Your task to perform on an android device: toggle sleep mode Image 0: 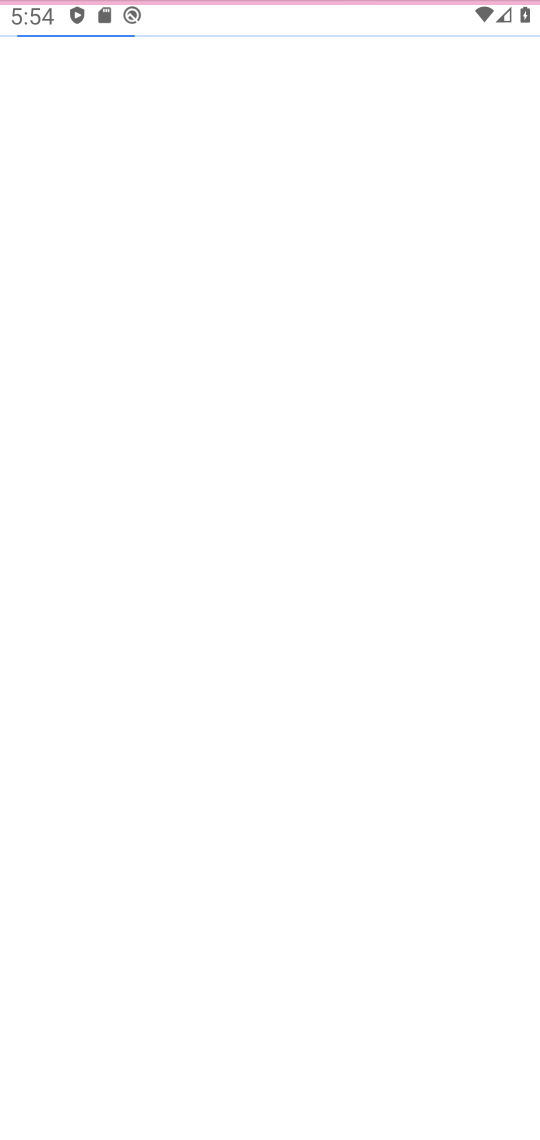
Step 0: press back button
Your task to perform on an android device: toggle sleep mode Image 1: 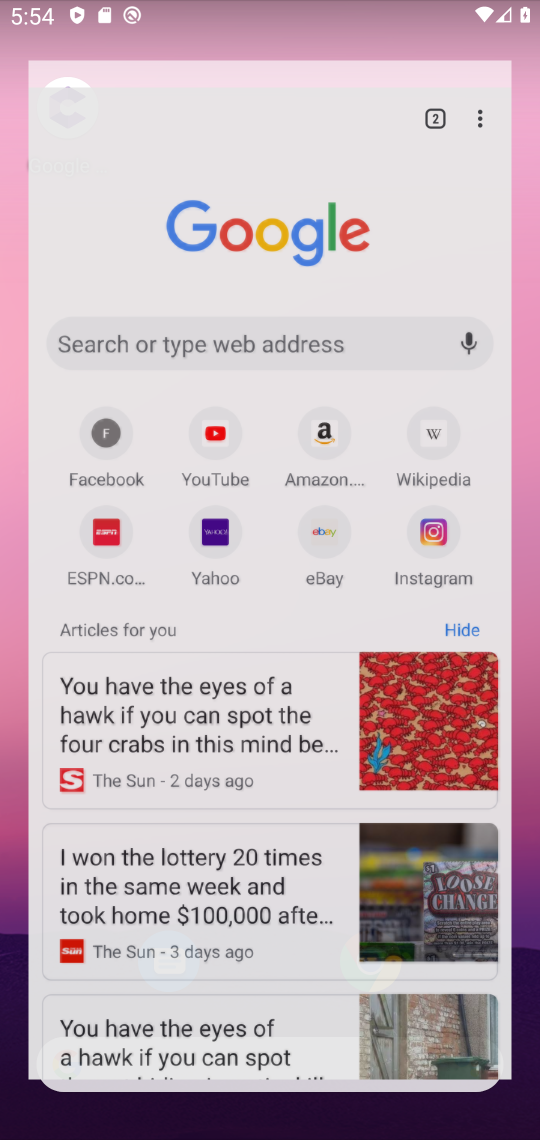
Step 1: drag from (134, 238) to (163, 291)
Your task to perform on an android device: toggle sleep mode Image 2: 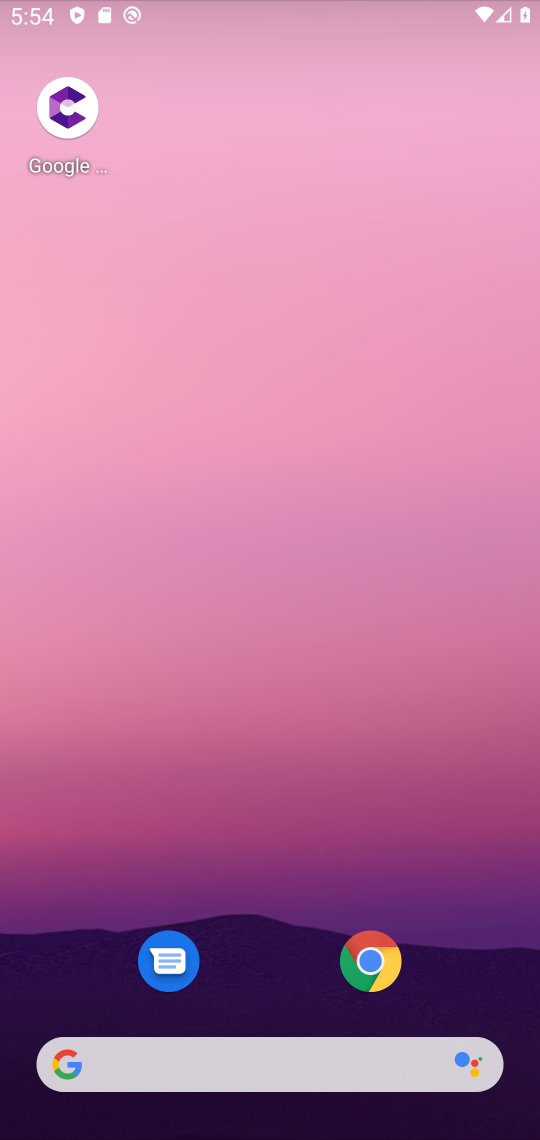
Step 2: press back button
Your task to perform on an android device: toggle sleep mode Image 3: 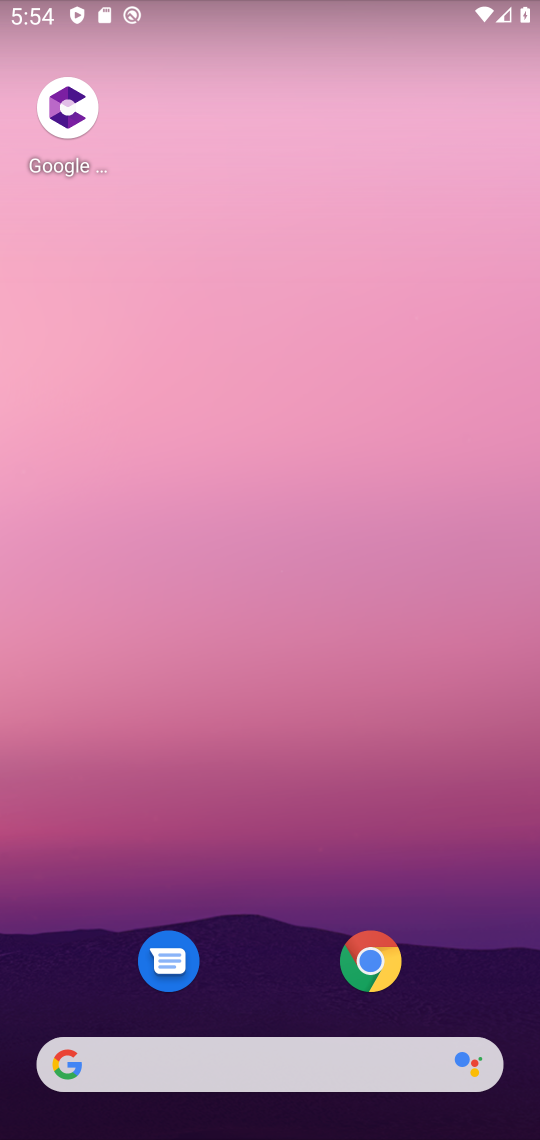
Step 3: press back button
Your task to perform on an android device: toggle sleep mode Image 4: 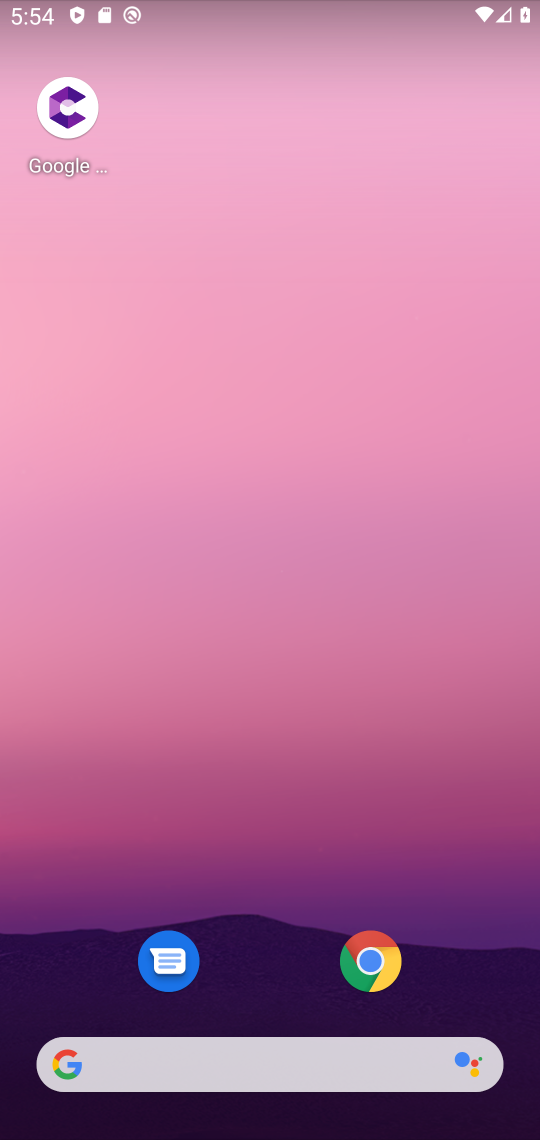
Step 4: drag from (191, 157) to (158, 108)
Your task to perform on an android device: toggle sleep mode Image 5: 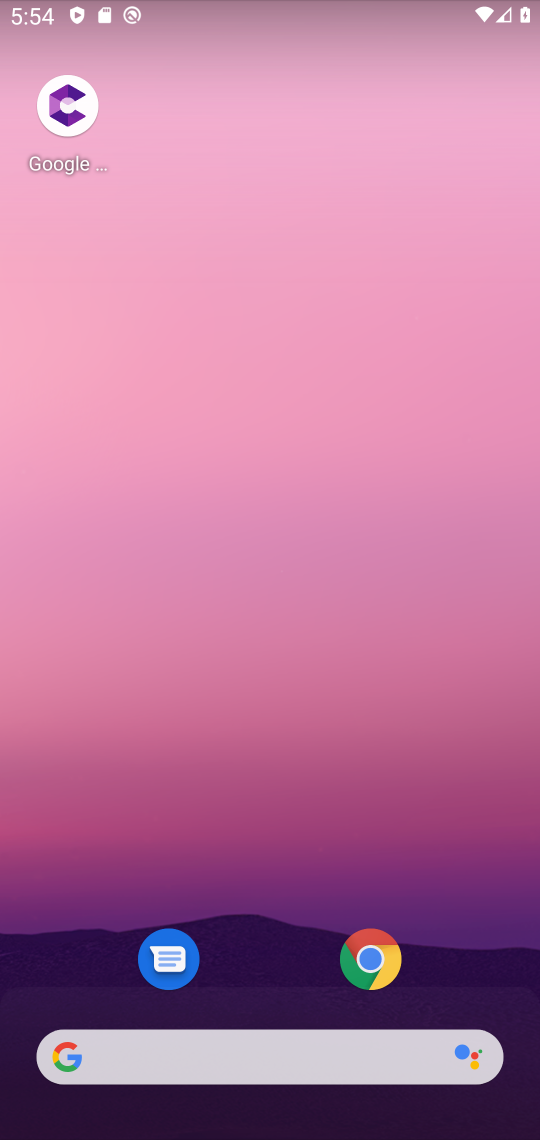
Step 5: drag from (216, 827) to (265, 5)
Your task to perform on an android device: toggle sleep mode Image 6: 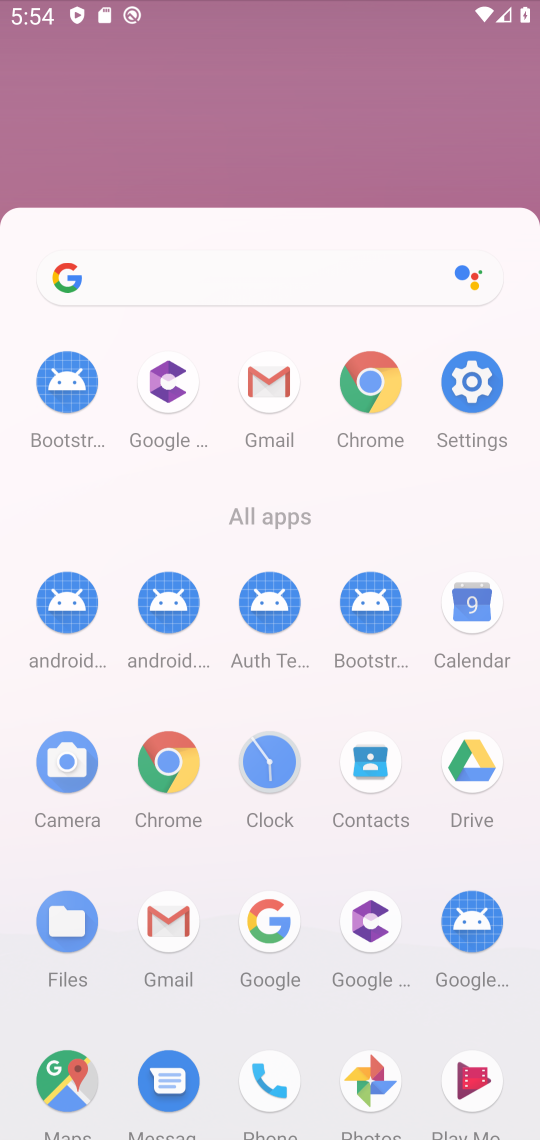
Step 6: drag from (256, 503) to (264, 7)
Your task to perform on an android device: toggle sleep mode Image 7: 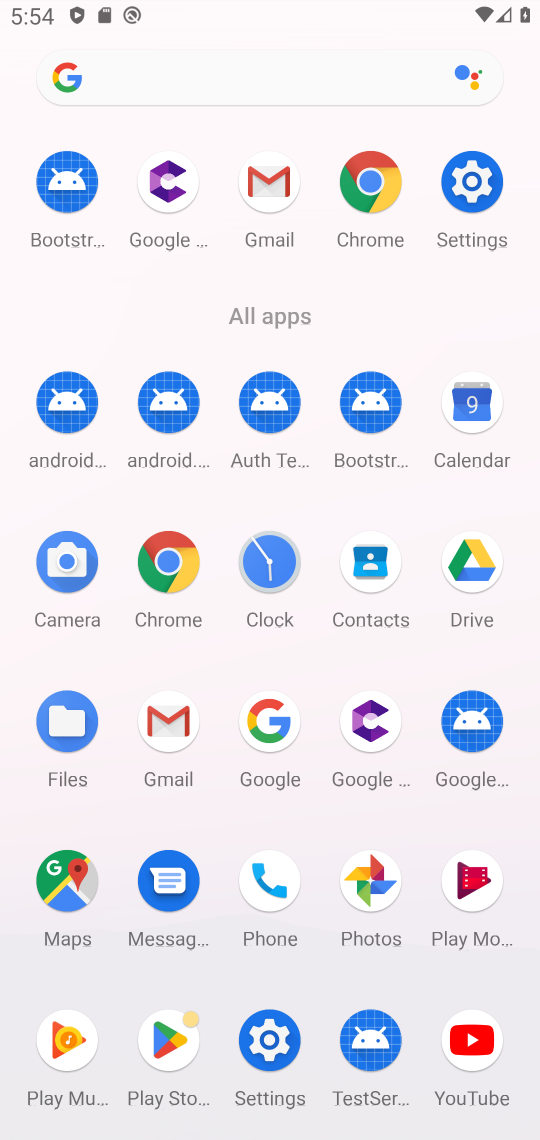
Step 7: click (481, 227)
Your task to perform on an android device: toggle sleep mode Image 8: 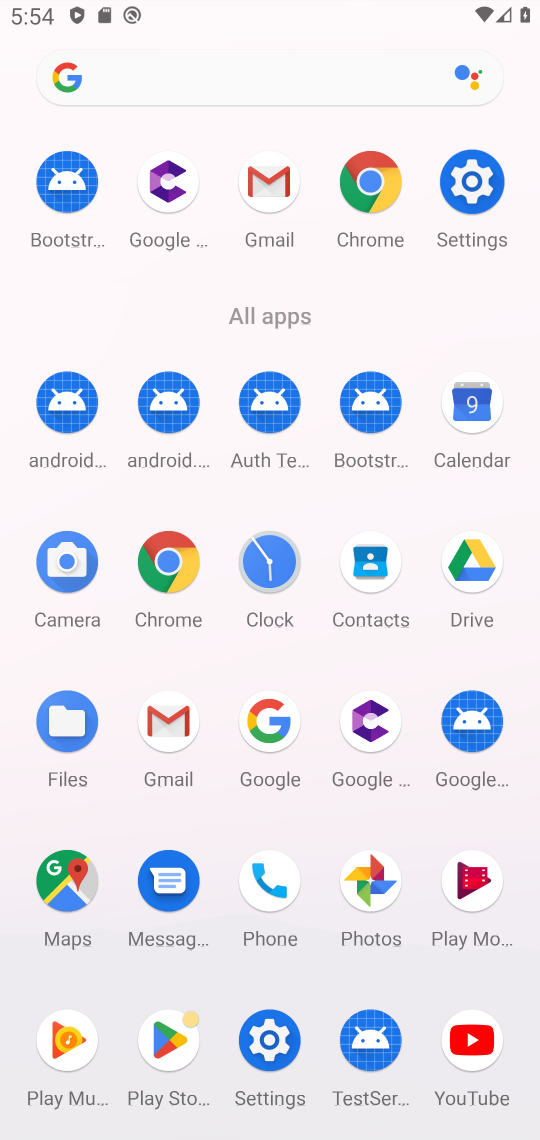
Step 8: click (481, 227)
Your task to perform on an android device: toggle sleep mode Image 9: 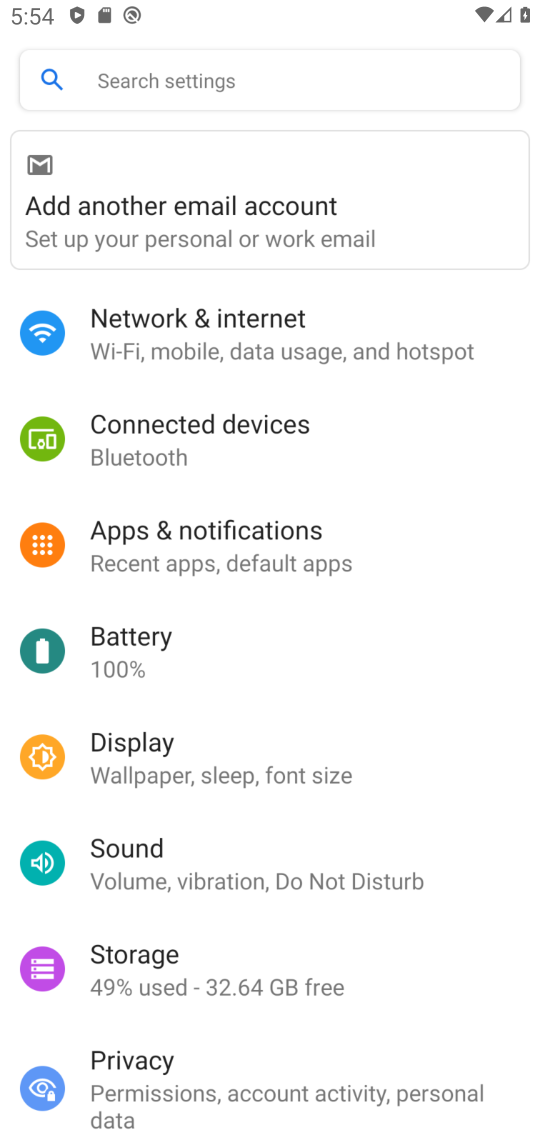
Step 9: click (483, 222)
Your task to perform on an android device: toggle sleep mode Image 10: 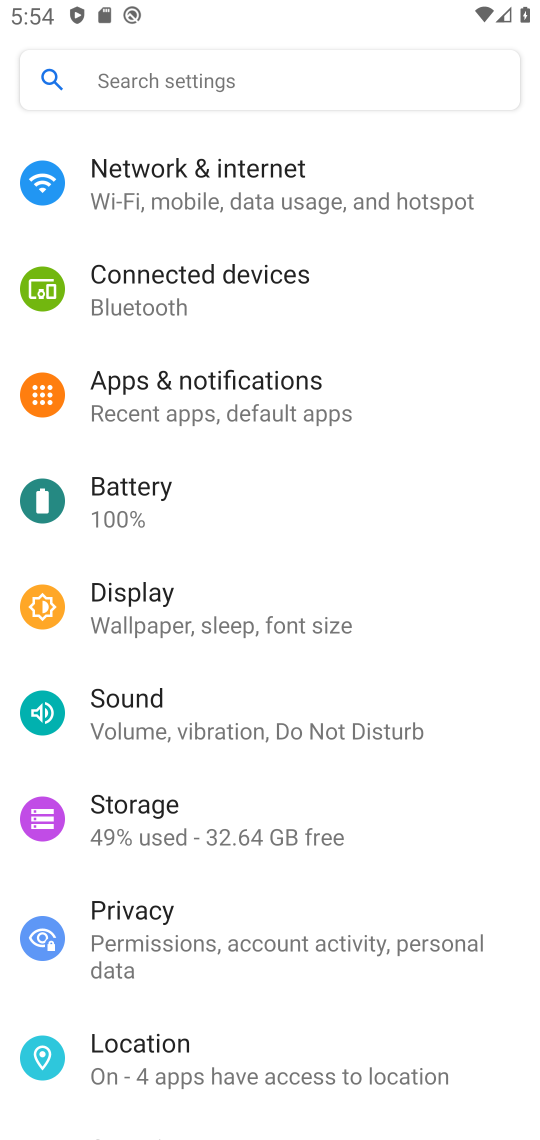
Step 10: click (145, 239)
Your task to perform on an android device: toggle sleep mode Image 11: 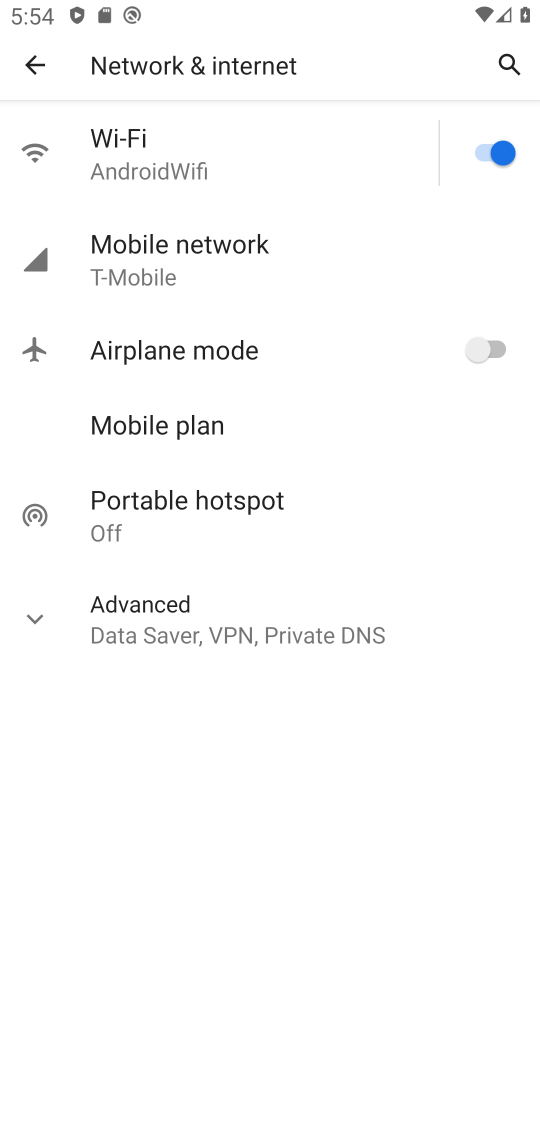
Step 11: click (43, 57)
Your task to perform on an android device: toggle sleep mode Image 12: 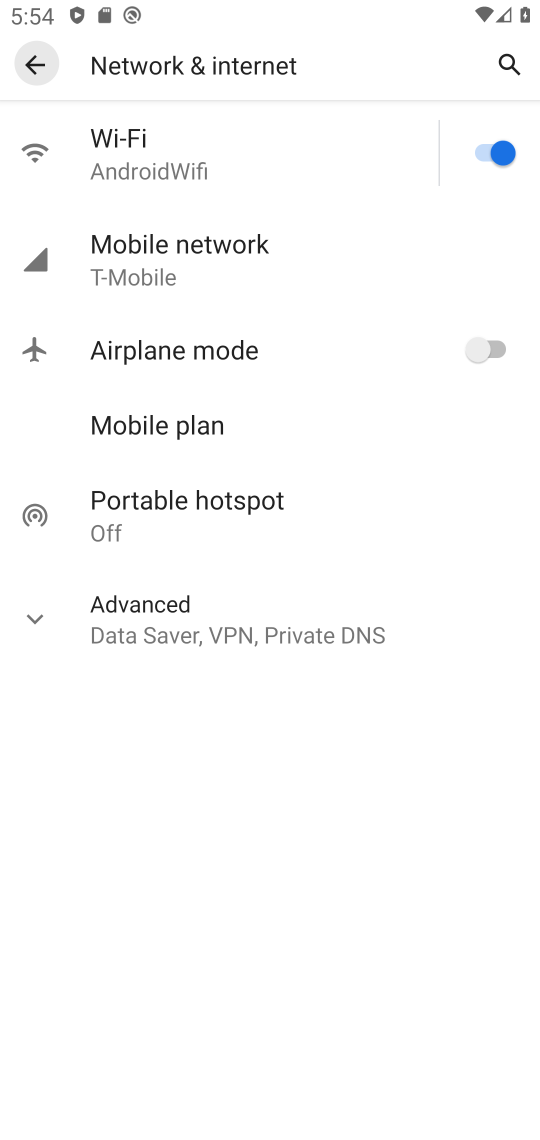
Step 12: click (39, 74)
Your task to perform on an android device: toggle sleep mode Image 13: 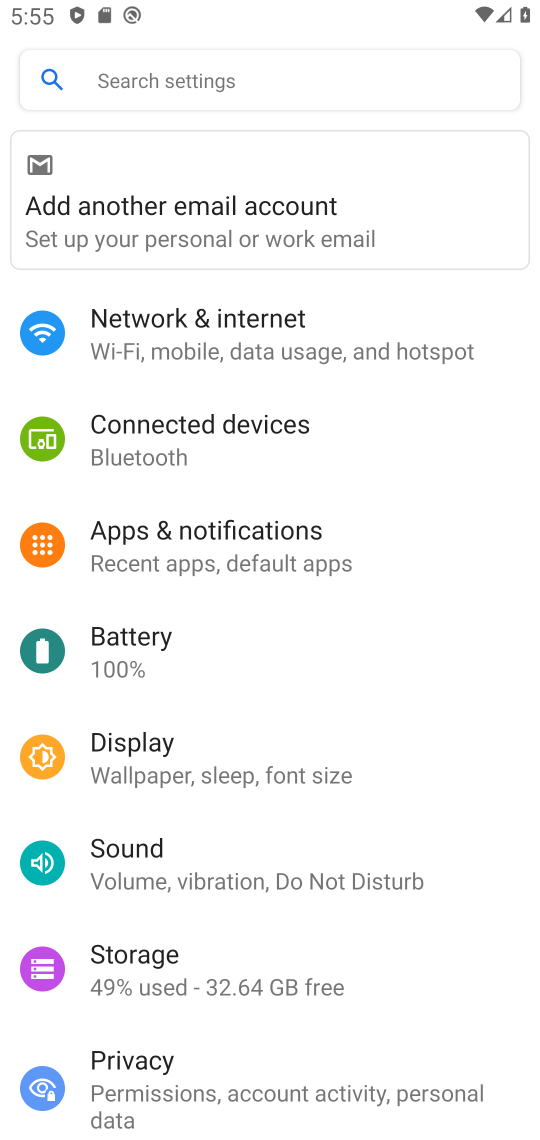
Step 13: click (130, 644)
Your task to perform on an android device: toggle sleep mode Image 14: 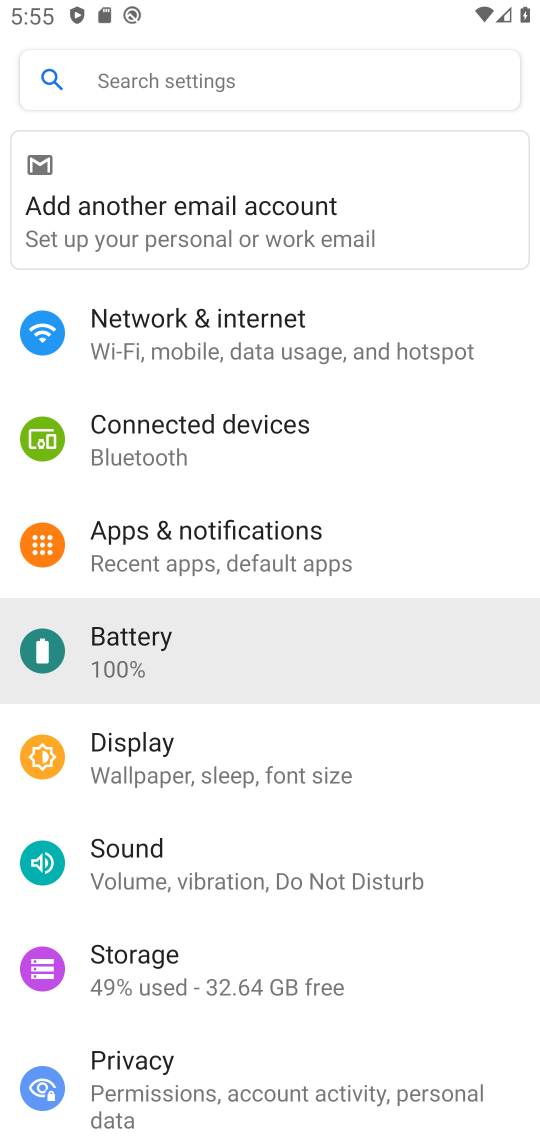
Step 14: click (130, 767)
Your task to perform on an android device: toggle sleep mode Image 15: 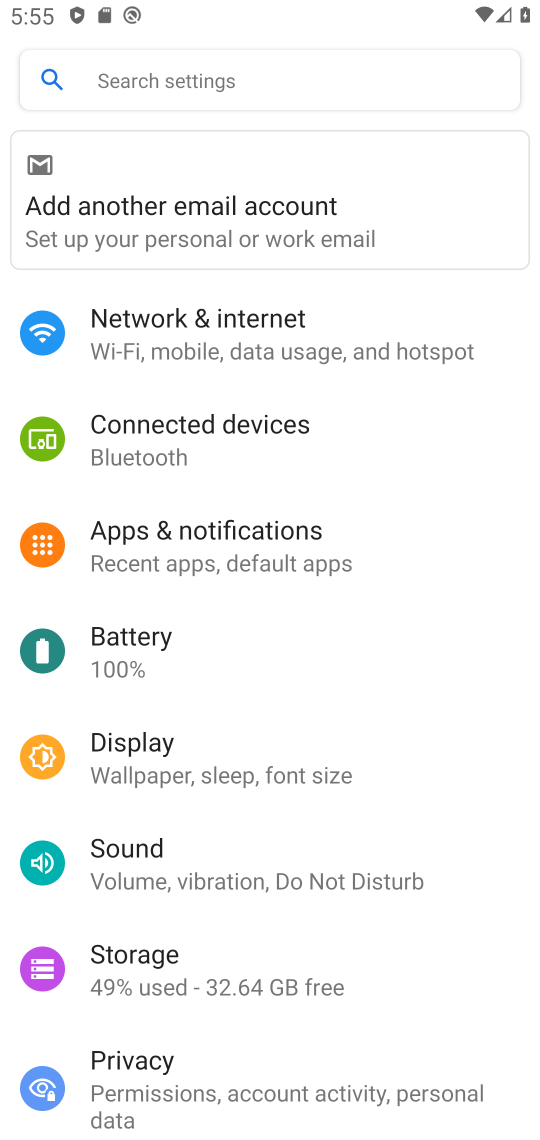
Step 15: click (130, 770)
Your task to perform on an android device: toggle sleep mode Image 16: 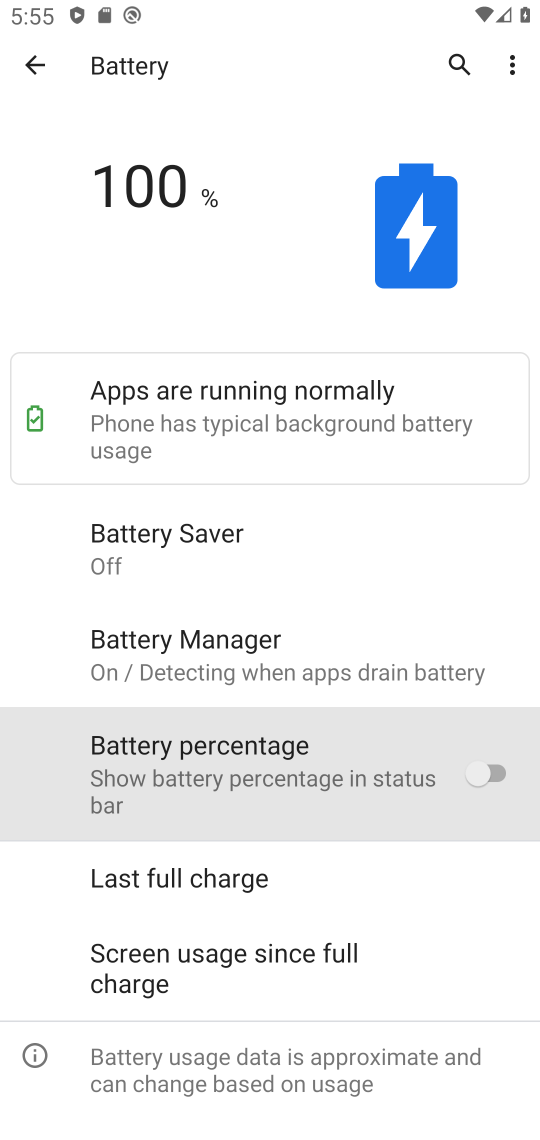
Step 16: click (128, 716)
Your task to perform on an android device: toggle sleep mode Image 17: 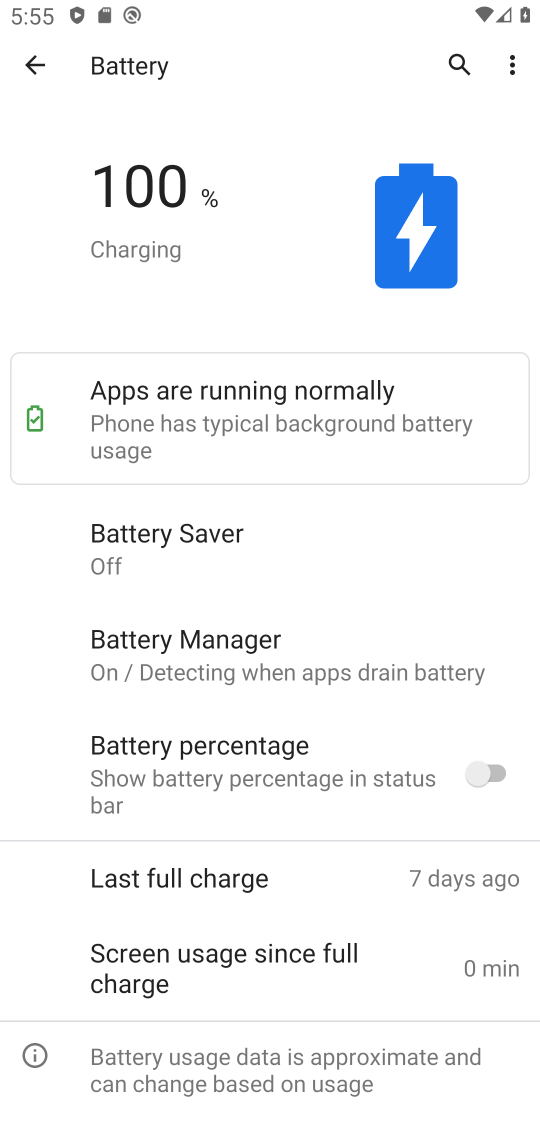
Step 17: click (33, 52)
Your task to perform on an android device: toggle sleep mode Image 18: 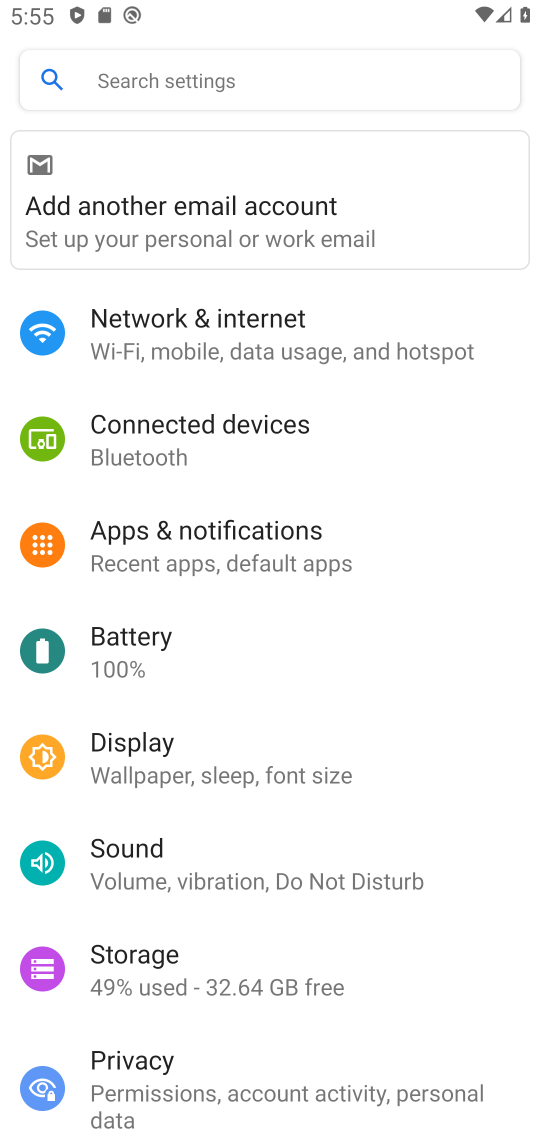
Step 18: click (124, 746)
Your task to perform on an android device: toggle sleep mode Image 19: 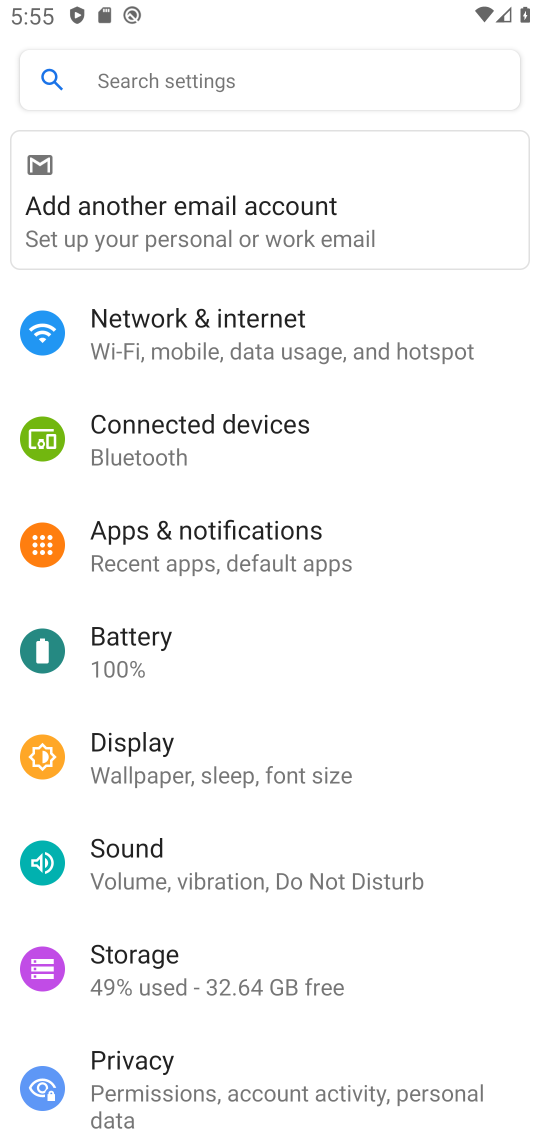
Step 19: click (125, 748)
Your task to perform on an android device: toggle sleep mode Image 20: 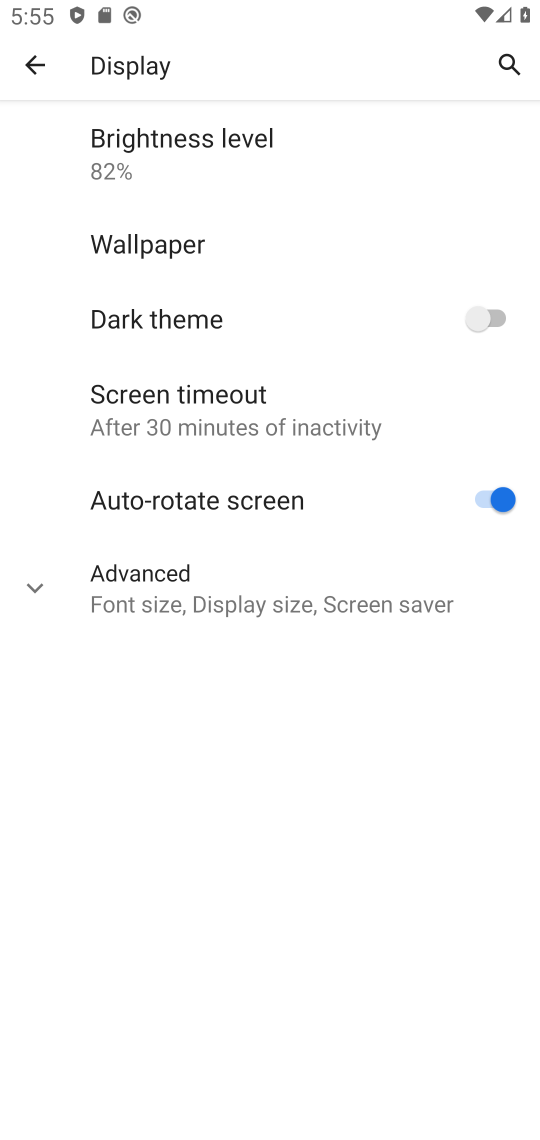
Step 20: click (139, 419)
Your task to perform on an android device: toggle sleep mode Image 21: 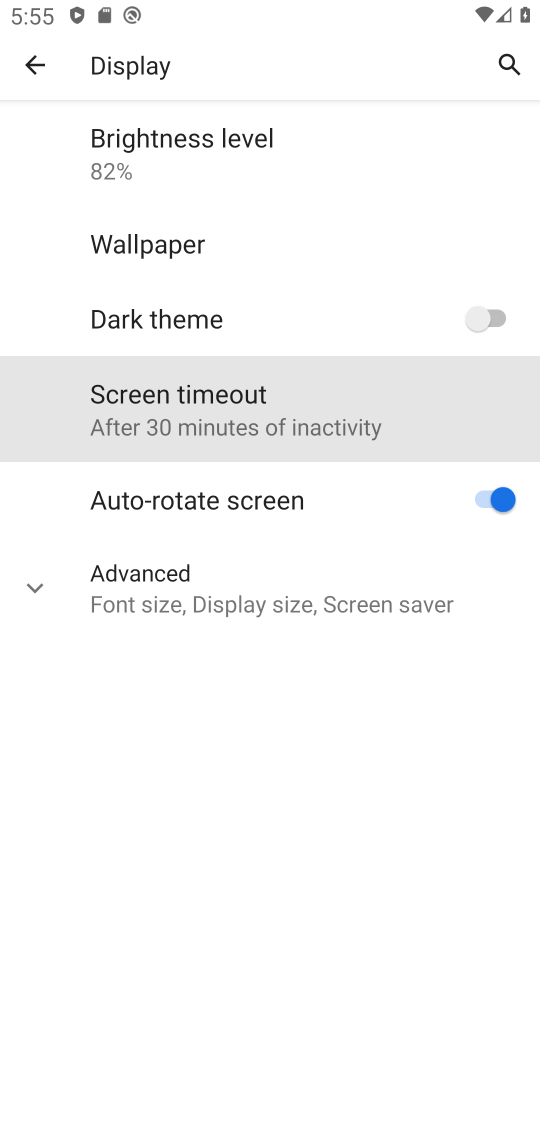
Step 21: click (138, 420)
Your task to perform on an android device: toggle sleep mode Image 22: 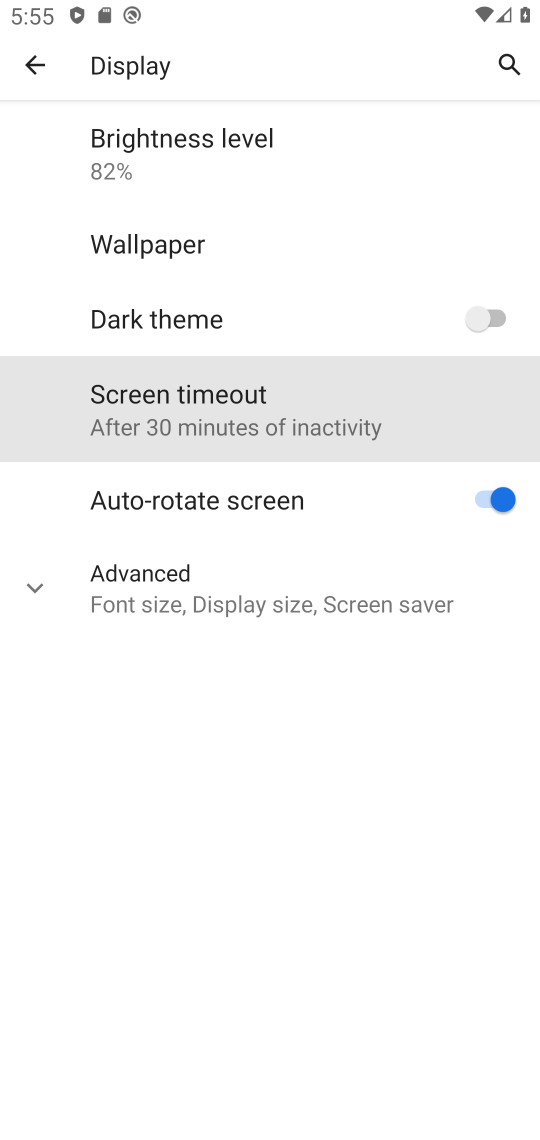
Step 22: click (146, 430)
Your task to perform on an android device: toggle sleep mode Image 23: 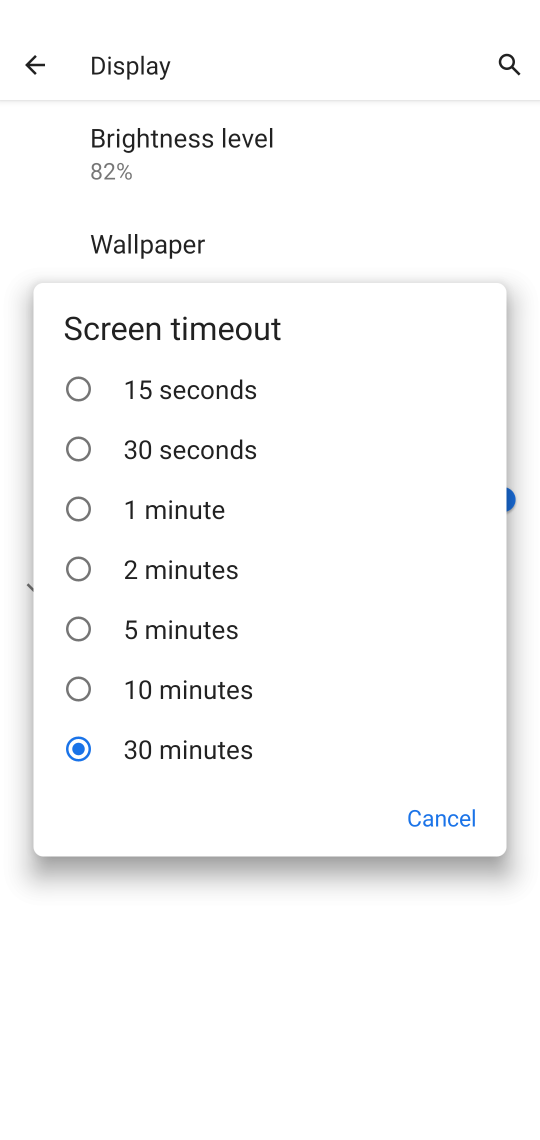
Step 23: click (81, 517)
Your task to perform on an android device: toggle sleep mode Image 24: 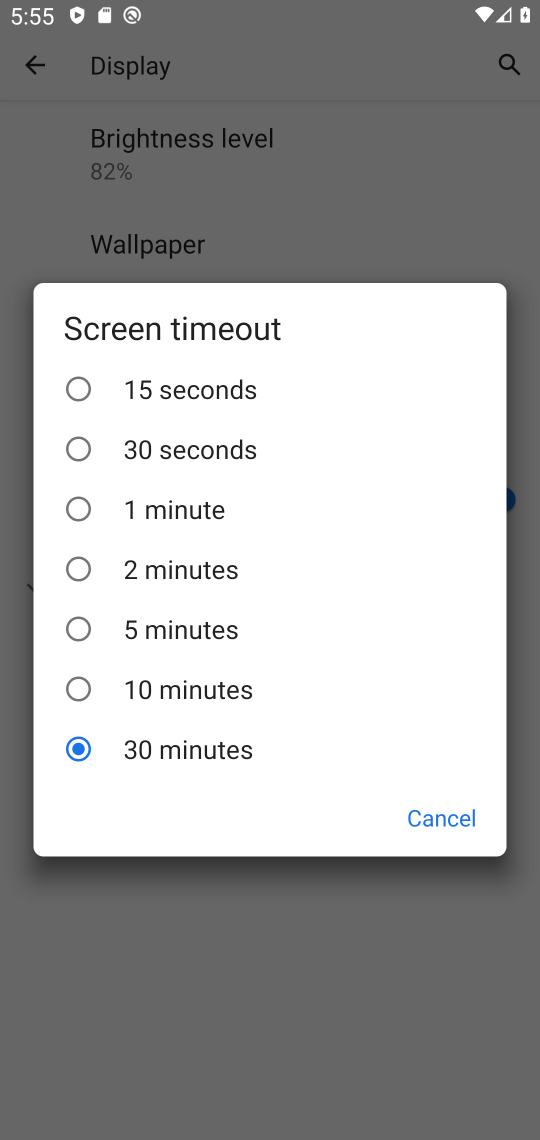
Step 24: click (80, 516)
Your task to perform on an android device: toggle sleep mode Image 25: 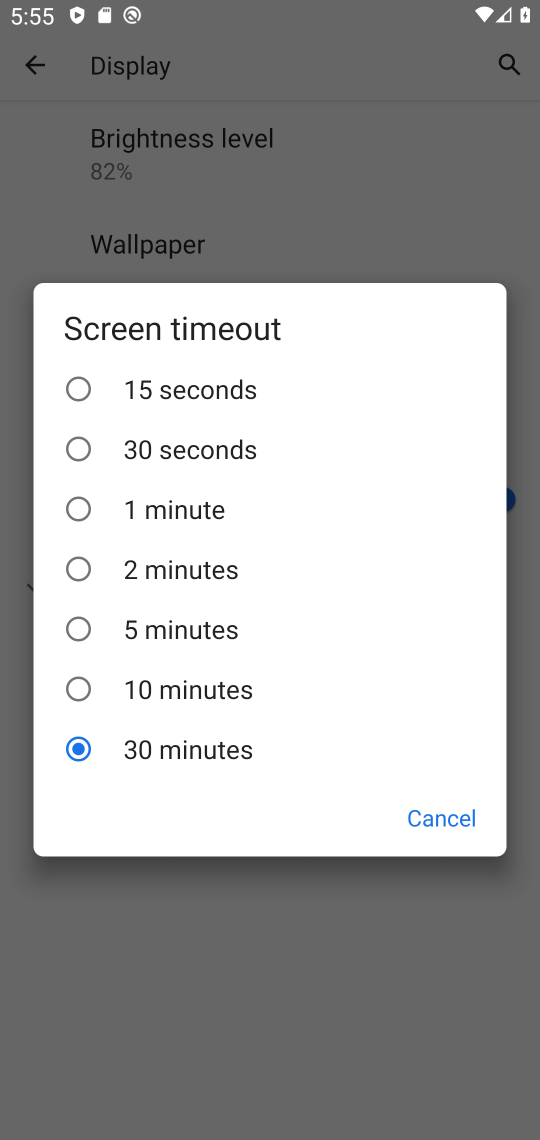
Step 25: task complete